Your task to perform on an android device: Check the news Image 0: 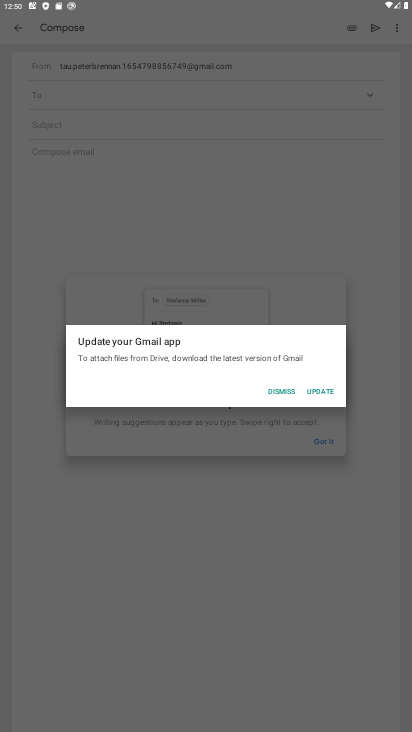
Step 0: press home button
Your task to perform on an android device: Check the news Image 1: 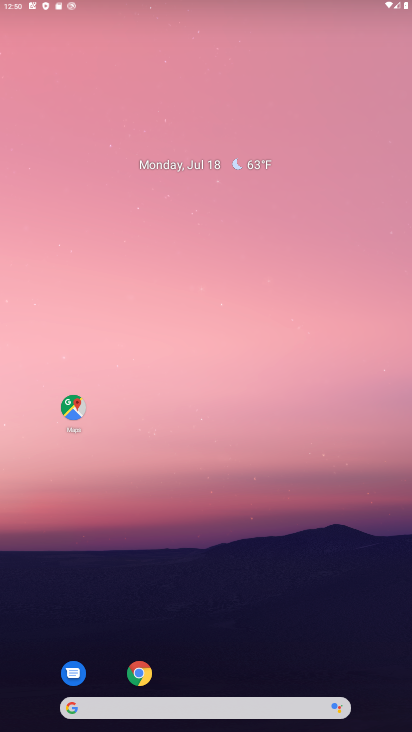
Step 1: drag from (205, 668) to (202, 161)
Your task to perform on an android device: Check the news Image 2: 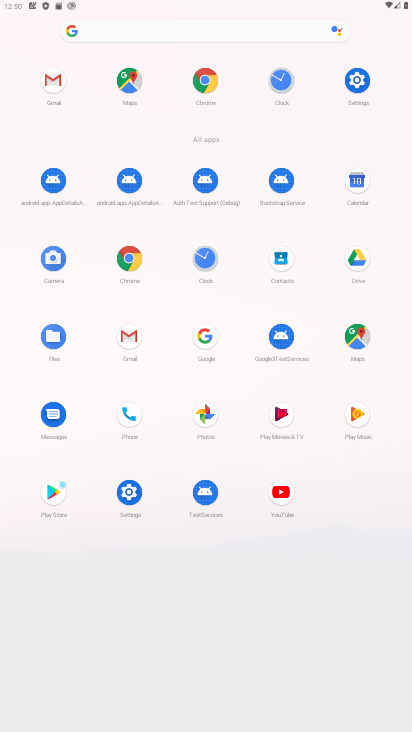
Step 2: click (199, 79)
Your task to perform on an android device: Check the news Image 3: 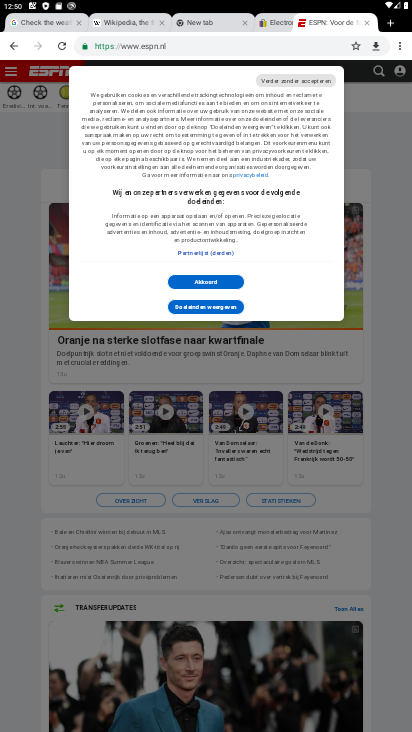
Step 3: click (388, 26)
Your task to perform on an android device: Check the news Image 4: 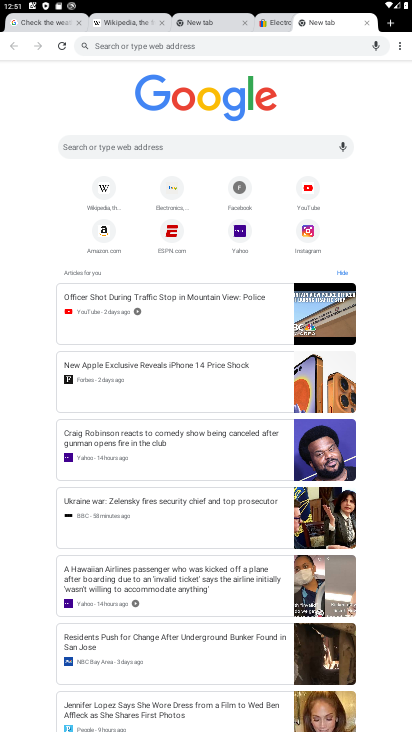
Step 4: click (132, 141)
Your task to perform on an android device: Check the news Image 5: 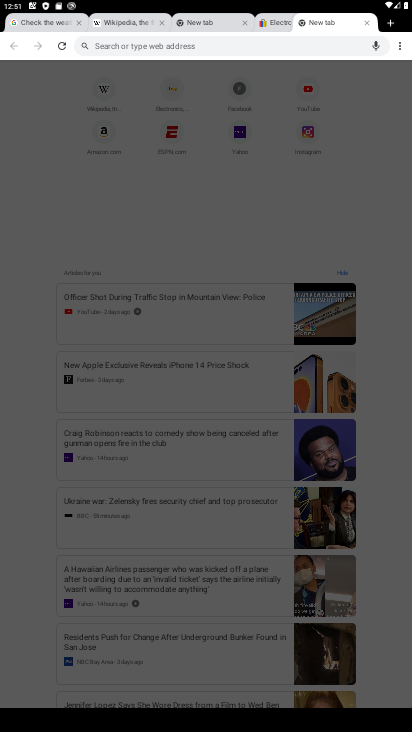
Step 5: type "Check the news  "
Your task to perform on an android device: Check the news Image 6: 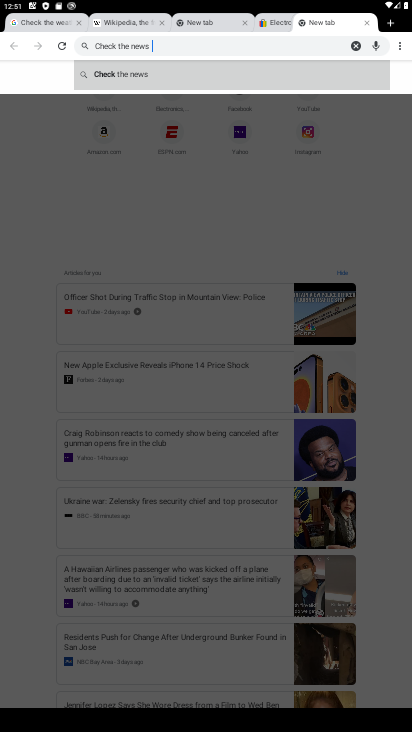
Step 6: click (164, 82)
Your task to perform on an android device: Check the news Image 7: 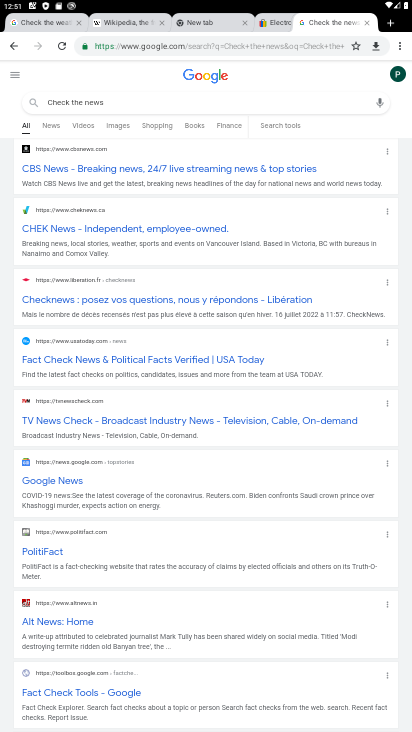
Step 7: task complete